Your task to perform on an android device: turn on improve location accuracy Image 0: 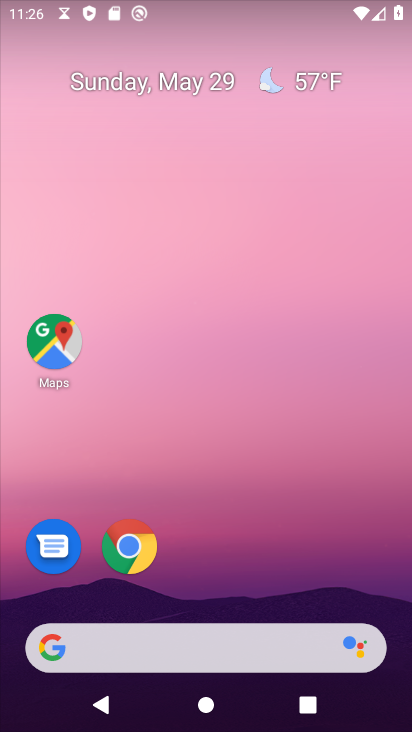
Step 0: press home button
Your task to perform on an android device: turn on improve location accuracy Image 1: 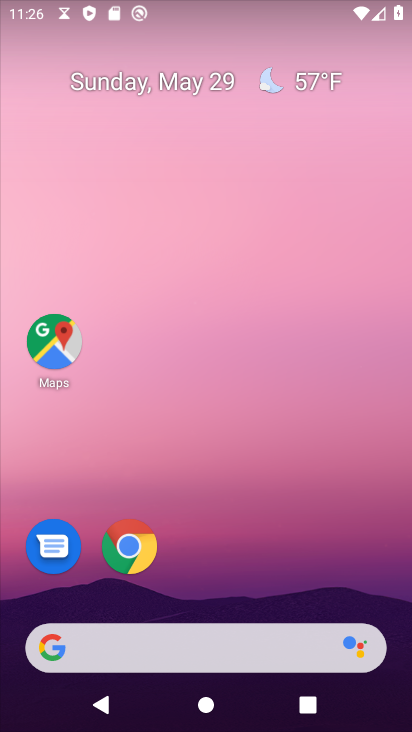
Step 1: drag from (131, 640) to (307, 16)
Your task to perform on an android device: turn on improve location accuracy Image 2: 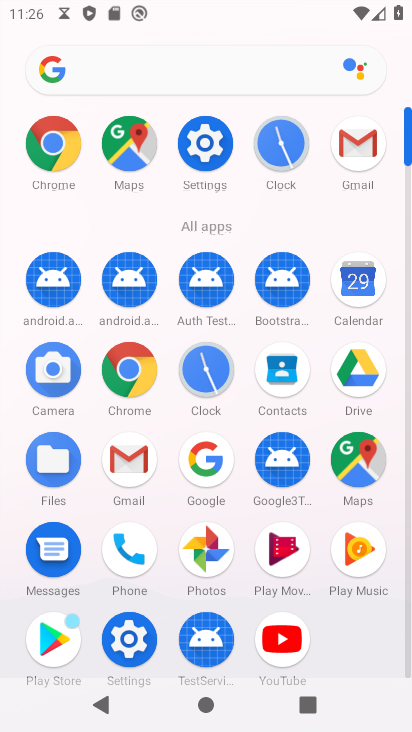
Step 2: click (132, 640)
Your task to perform on an android device: turn on improve location accuracy Image 3: 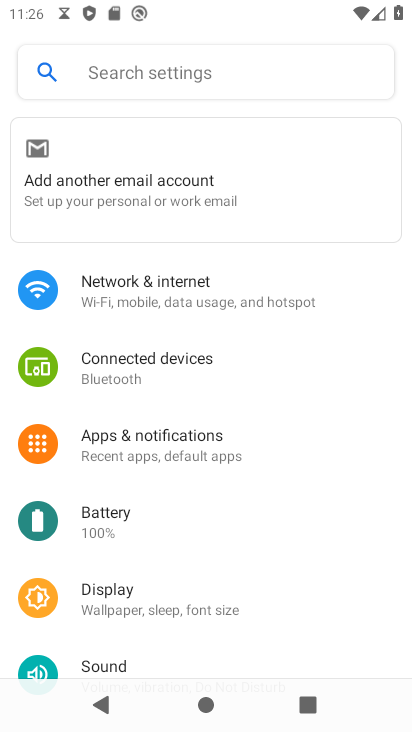
Step 3: drag from (166, 619) to (317, 132)
Your task to perform on an android device: turn on improve location accuracy Image 4: 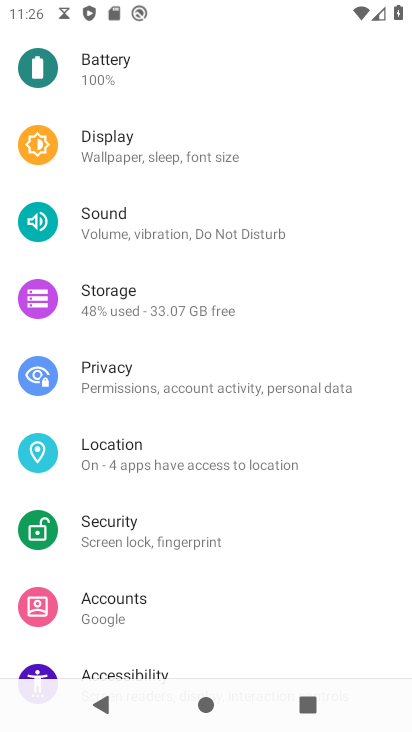
Step 4: click (150, 474)
Your task to perform on an android device: turn on improve location accuracy Image 5: 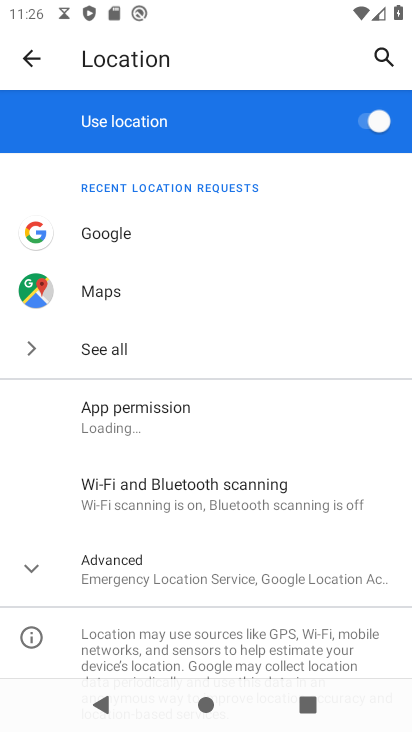
Step 5: drag from (213, 529) to (336, 225)
Your task to perform on an android device: turn on improve location accuracy Image 6: 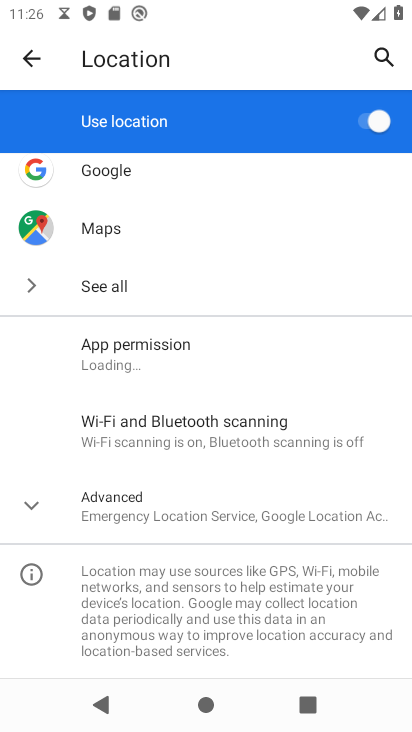
Step 6: click (170, 506)
Your task to perform on an android device: turn on improve location accuracy Image 7: 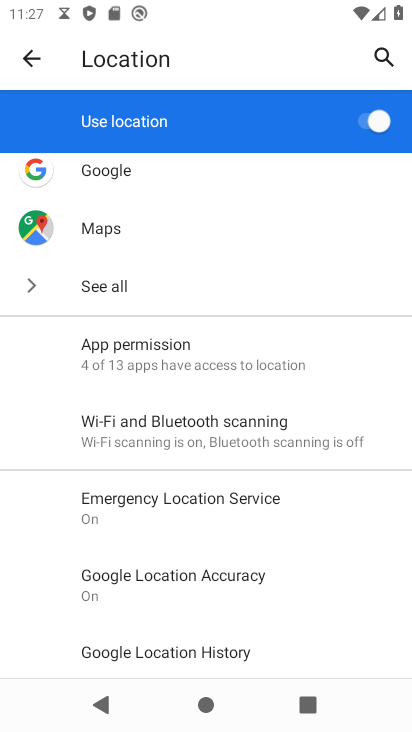
Step 7: click (193, 579)
Your task to perform on an android device: turn on improve location accuracy Image 8: 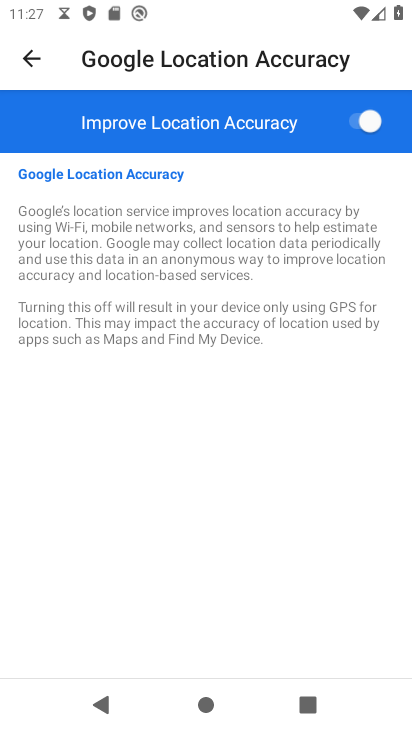
Step 8: task complete